Your task to perform on an android device: Open Android settings Image 0: 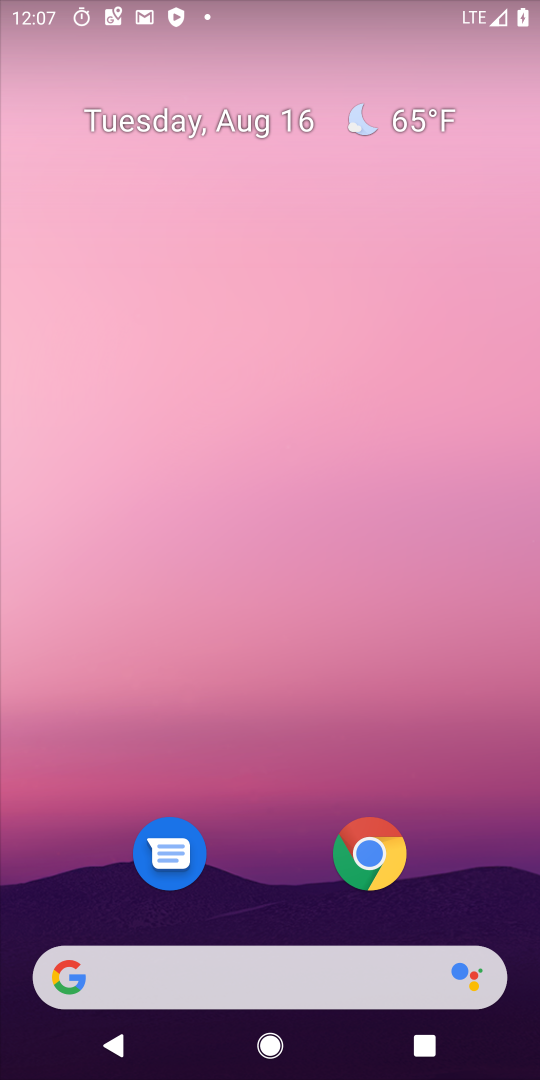
Step 0: drag from (254, 910) to (331, 288)
Your task to perform on an android device: Open Android settings Image 1: 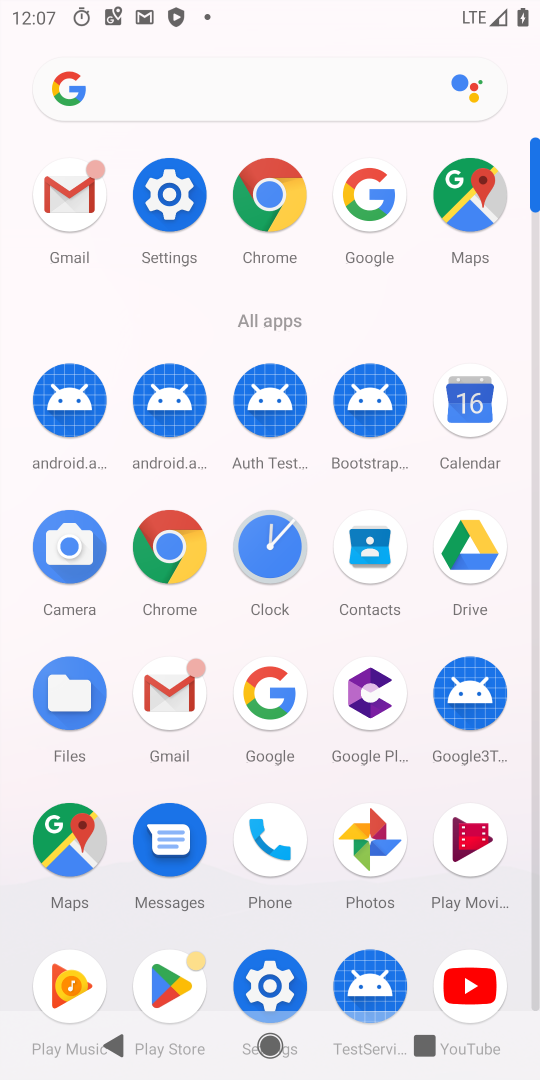
Step 1: click (169, 209)
Your task to perform on an android device: Open Android settings Image 2: 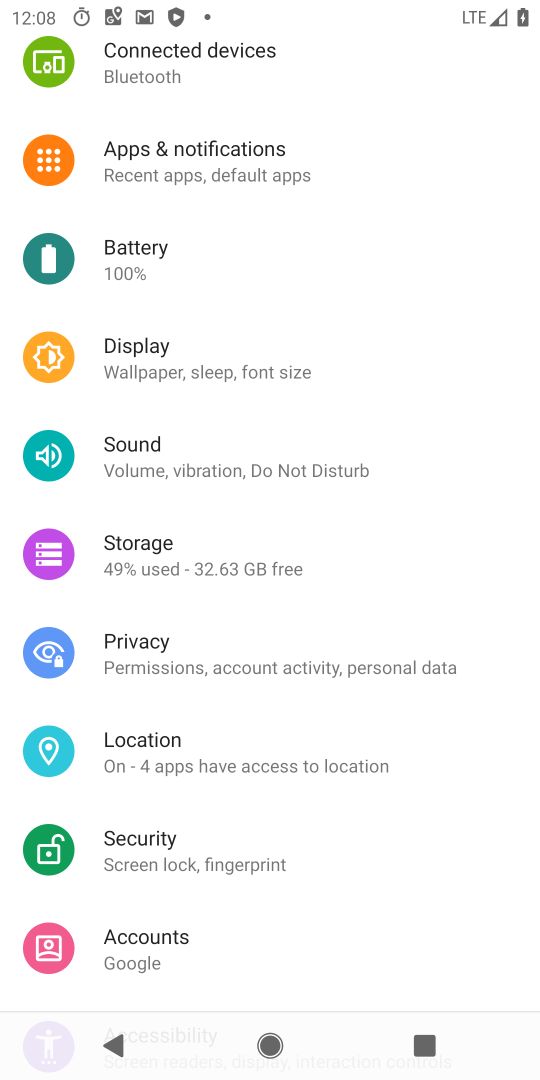
Step 2: task complete